Your task to perform on an android device: turn on javascript in the chrome app Image 0: 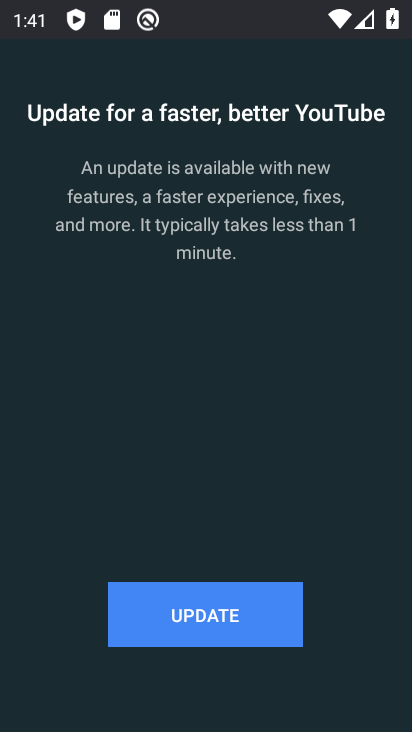
Step 0: click (221, 617)
Your task to perform on an android device: turn on javascript in the chrome app Image 1: 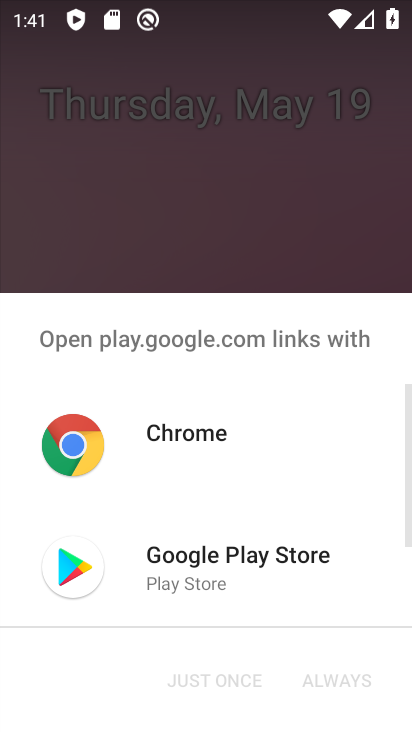
Step 1: click (222, 582)
Your task to perform on an android device: turn on javascript in the chrome app Image 2: 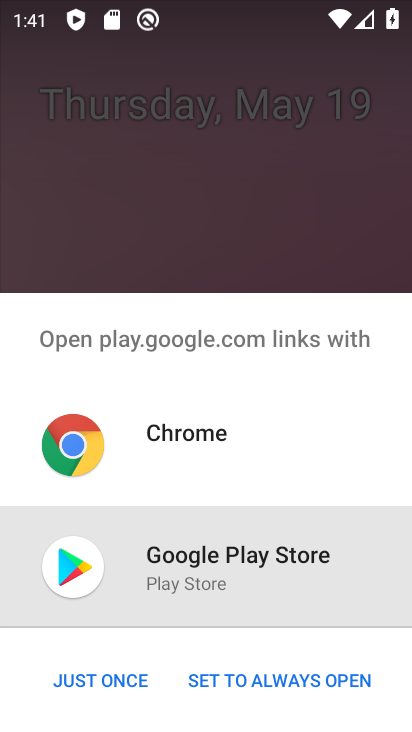
Step 2: press home button
Your task to perform on an android device: turn on javascript in the chrome app Image 3: 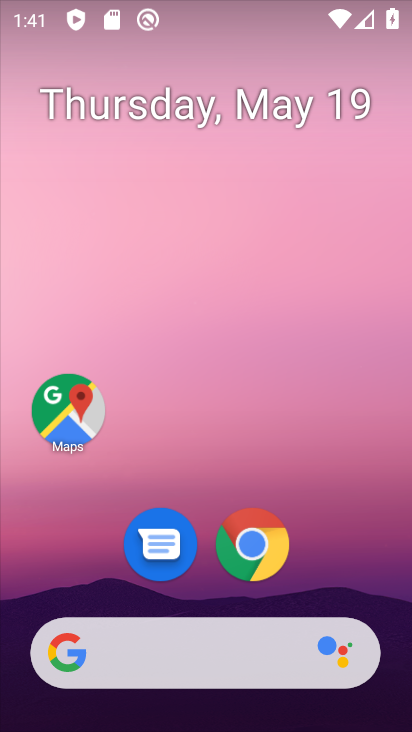
Step 3: click (246, 555)
Your task to perform on an android device: turn on javascript in the chrome app Image 4: 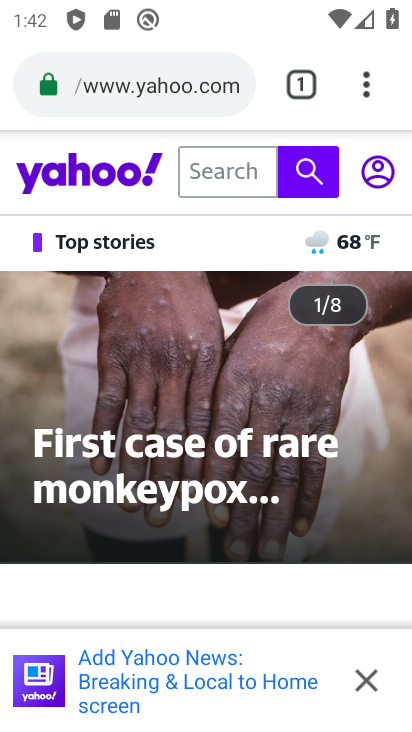
Step 4: click (379, 85)
Your task to perform on an android device: turn on javascript in the chrome app Image 5: 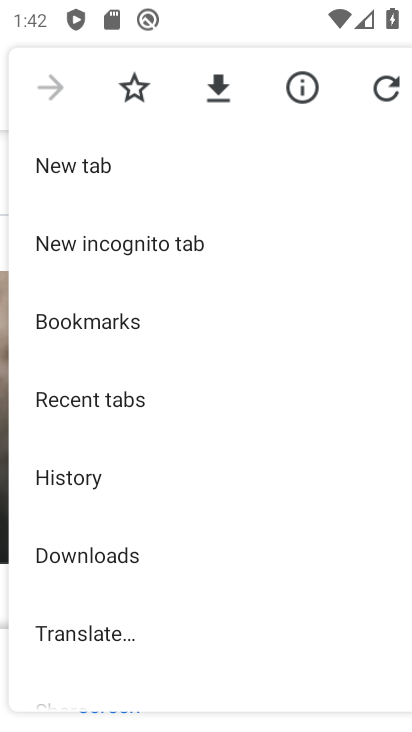
Step 5: drag from (208, 541) to (246, 295)
Your task to perform on an android device: turn on javascript in the chrome app Image 6: 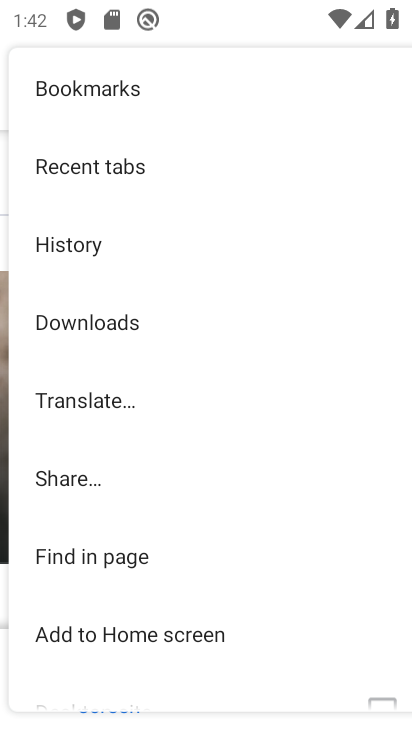
Step 6: drag from (129, 603) to (124, 441)
Your task to perform on an android device: turn on javascript in the chrome app Image 7: 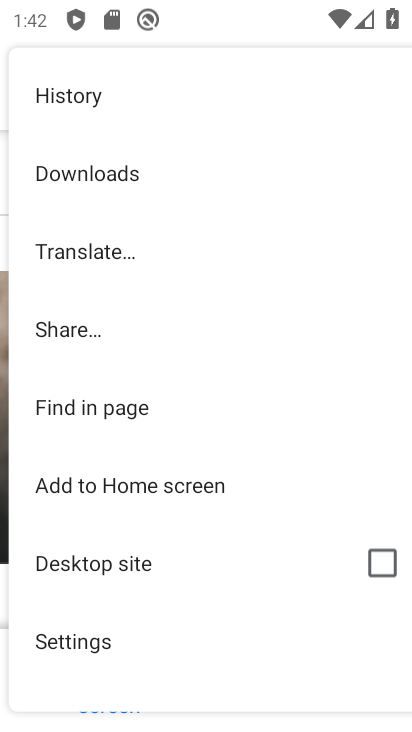
Step 7: click (92, 632)
Your task to perform on an android device: turn on javascript in the chrome app Image 8: 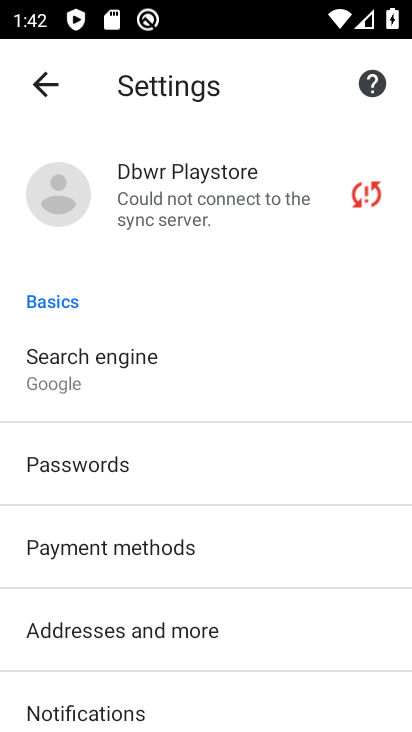
Step 8: drag from (202, 652) to (209, 385)
Your task to perform on an android device: turn on javascript in the chrome app Image 9: 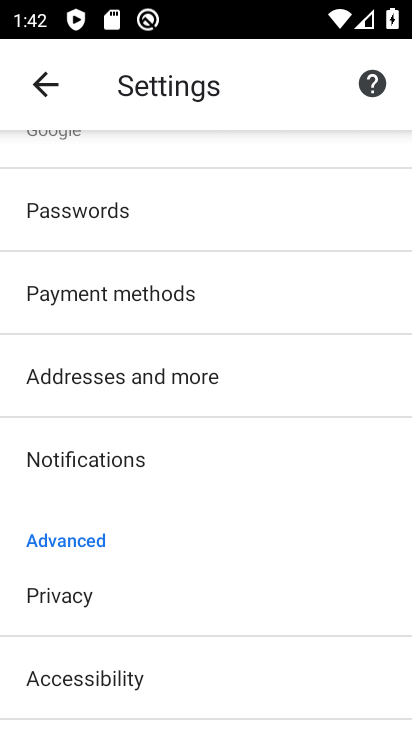
Step 9: drag from (139, 683) to (113, 512)
Your task to perform on an android device: turn on javascript in the chrome app Image 10: 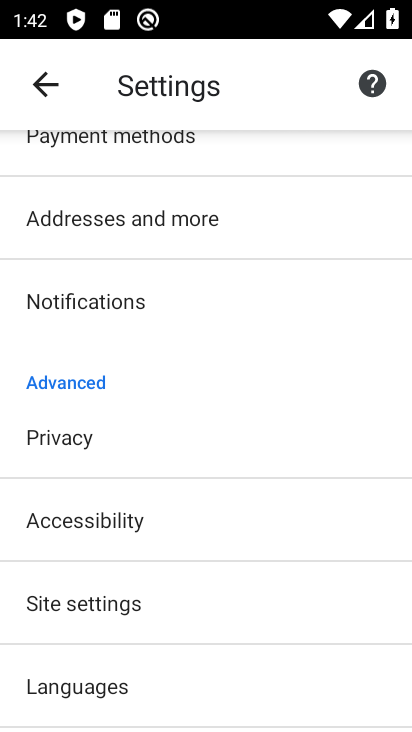
Step 10: click (87, 601)
Your task to perform on an android device: turn on javascript in the chrome app Image 11: 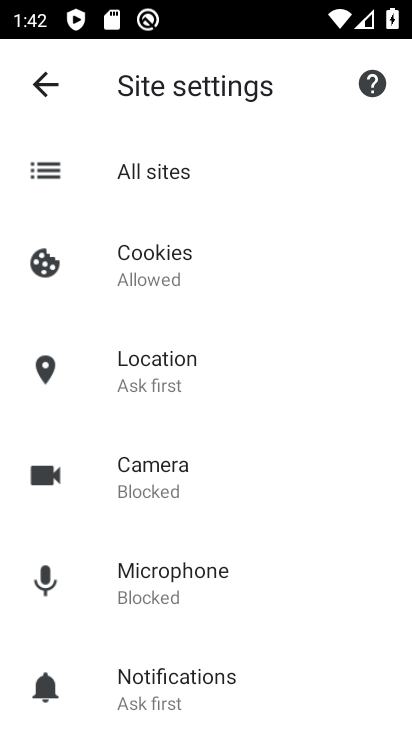
Step 11: drag from (195, 618) to (209, 419)
Your task to perform on an android device: turn on javascript in the chrome app Image 12: 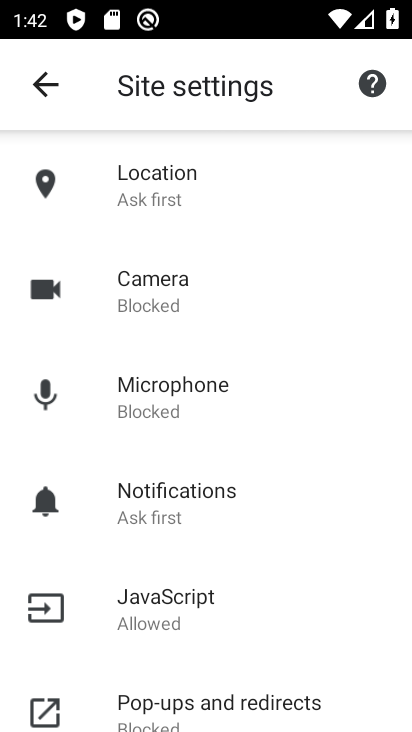
Step 12: click (154, 600)
Your task to perform on an android device: turn on javascript in the chrome app Image 13: 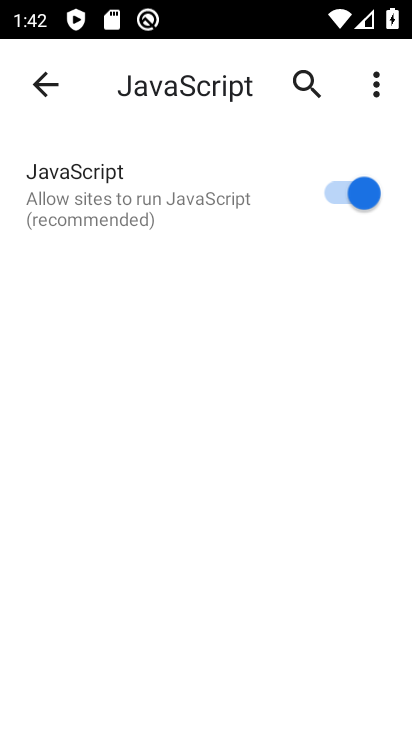
Step 13: click (343, 191)
Your task to perform on an android device: turn on javascript in the chrome app Image 14: 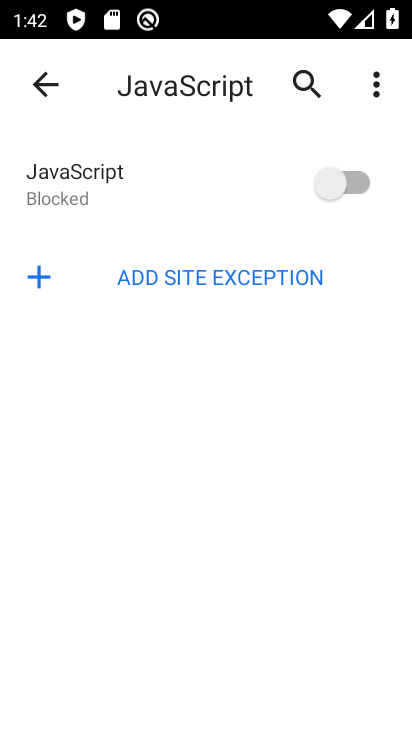
Step 14: click (343, 191)
Your task to perform on an android device: turn on javascript in the chrome app Image 15: 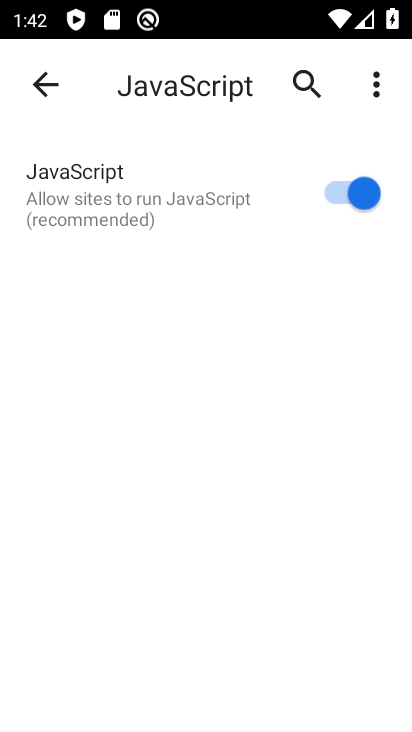
Step 15: task complete